Your task to perform on an android device: Turn off the flashlight Image 0: 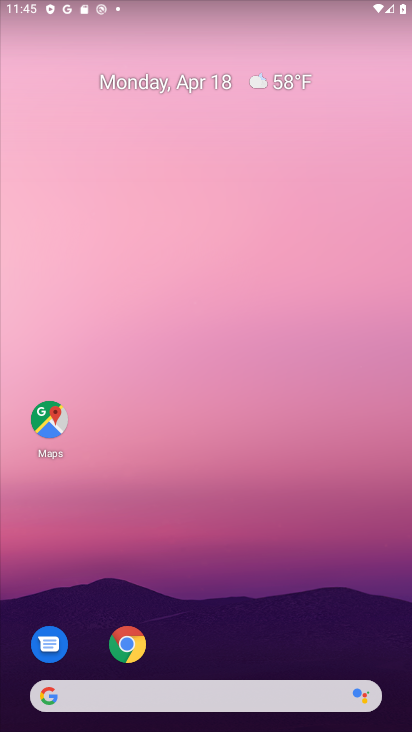
Step 0: drag from (272, 636) to (347, 118)
Your task to perform on an android device: Turn off the flashlight Image 1: 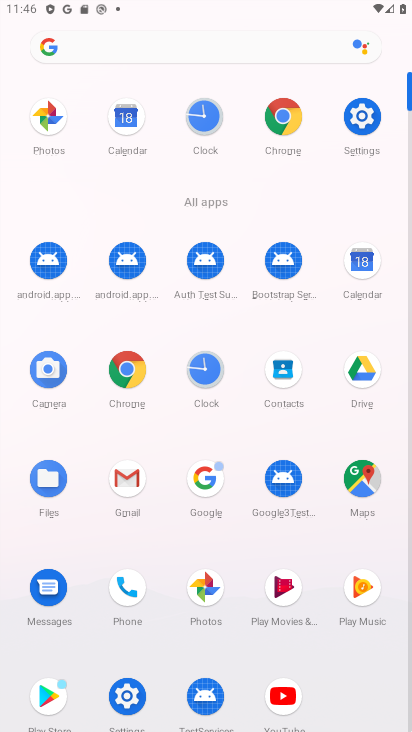
Step 1: click (367, 117)
Your task to perform on an android device: Turn off the flashlight Image 2: 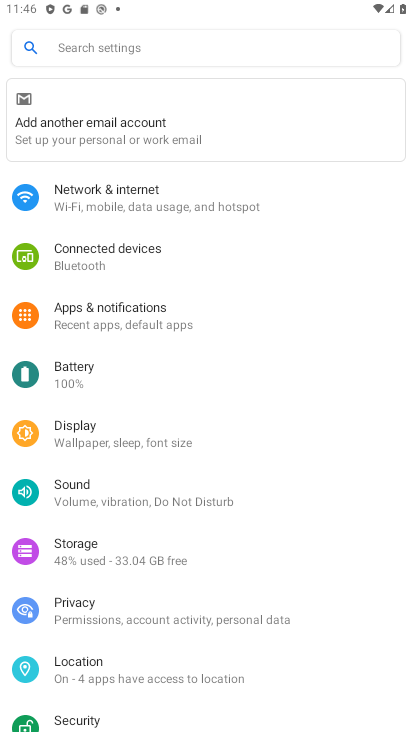
Step 2: click (176, 43)
Your task to perform on an android device: Turn off the flashlight Image 3: 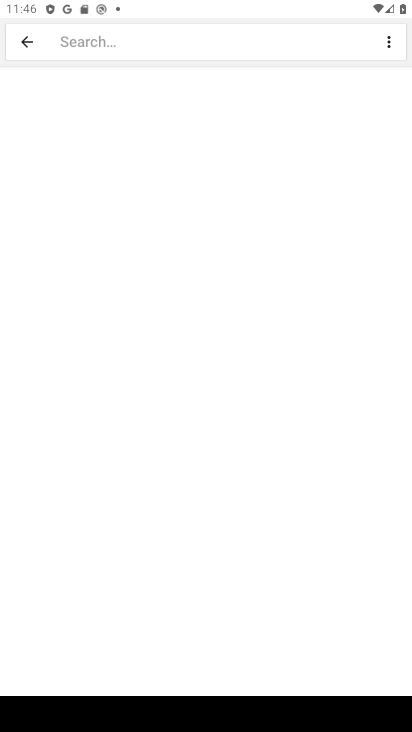
Step 3: type "flashlight"
Your task to perform on an android device: Turn off the flashlight Image 4: 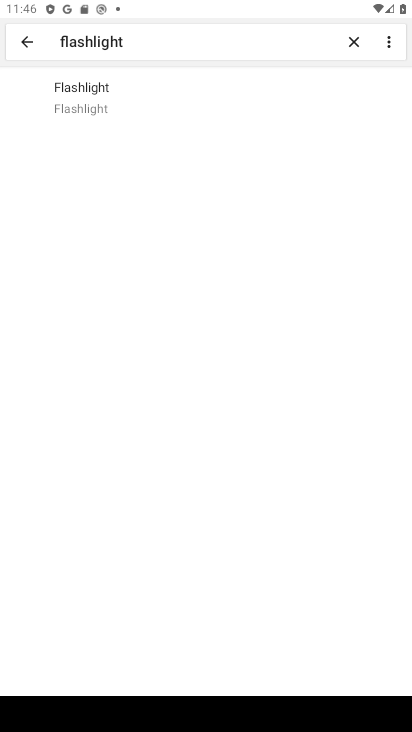
Step 4: click (127, 104)
Your task to perform on an android device: Turn off the flashlight Image 5: 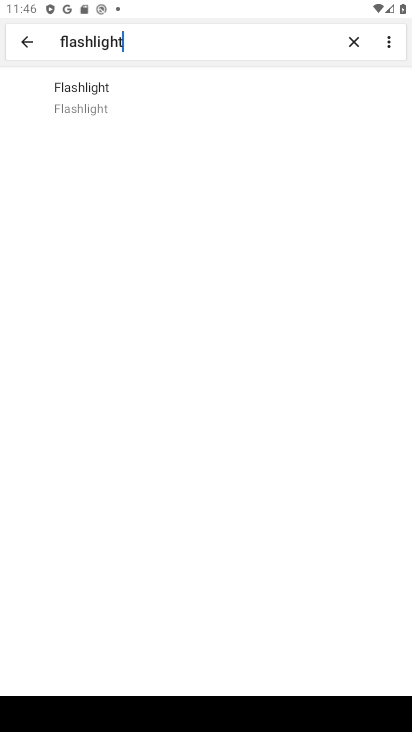
Step 5: task complete